Your task to perform on an android device: Search for "lenovo thinkpad" on ebay, select the first entry, add it to the cart, then select checkout. Image 0: 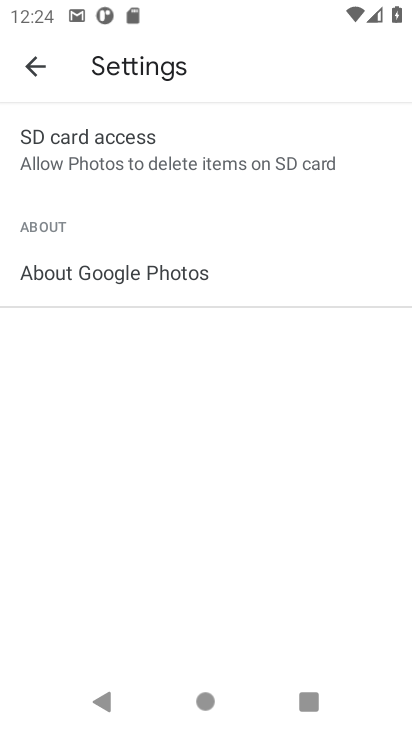
Step 0: press home button
Your task to perform on an android device: Search for "lenovo thinkpad" on ebay, select the first entry, add it to the cart, then select checkout. Image 1: 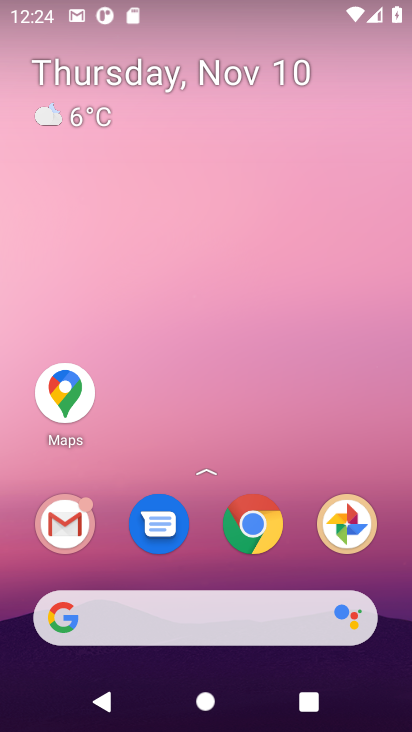
Step 1: task complete